Your task to perform on an android device: turn on translation in the chrome app Image 0: 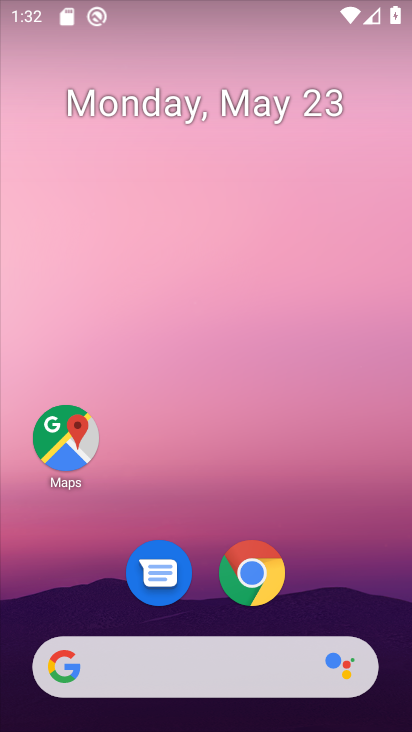
Step 0: click (254, 576)
Your task to perform on an android device: turn on translation in the chrome app Image 1: 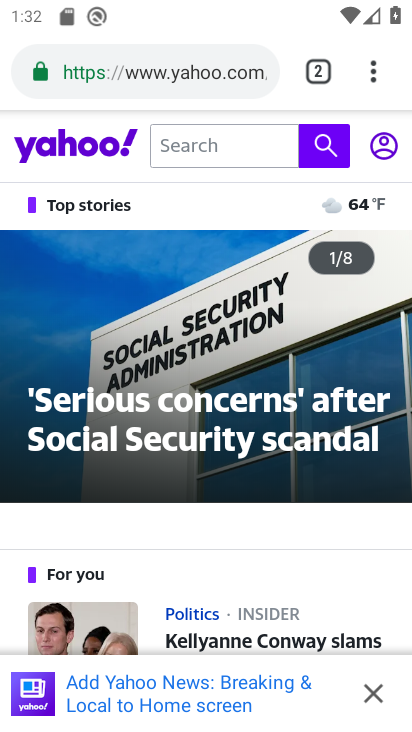
Step 1: click (382, 73)
Your task to perform on an android device: turn on translation in the chrome app Image 2: 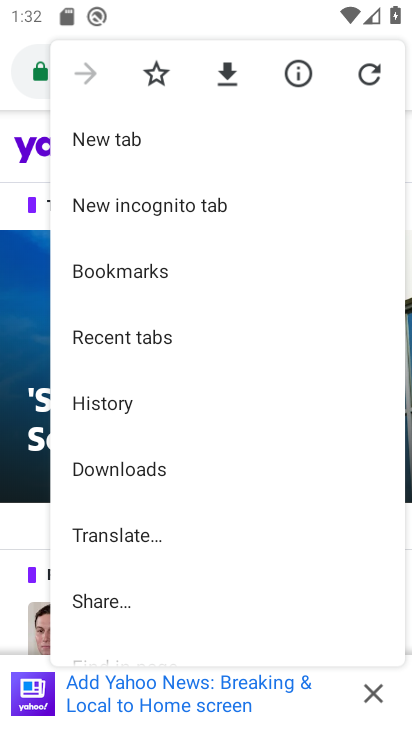
Step 2: drag from (201, 573) to (240, 205)
Your task to perform on an android device: turn on translation in the chrome app Image 3: 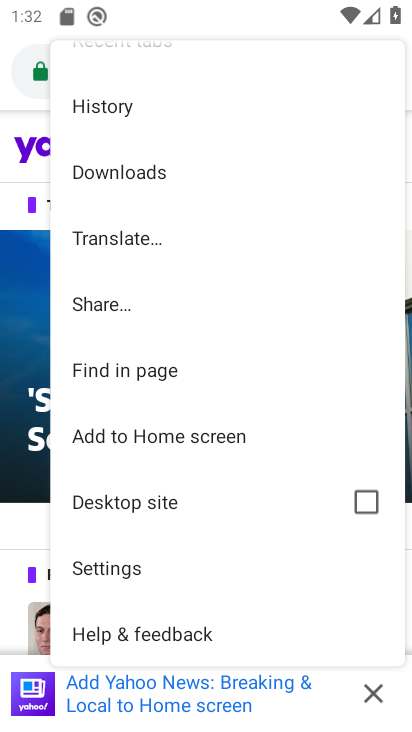
Step 3: click (134, 568)
Your task to perform on an android device: turn on translation in the chrome app Image 4: 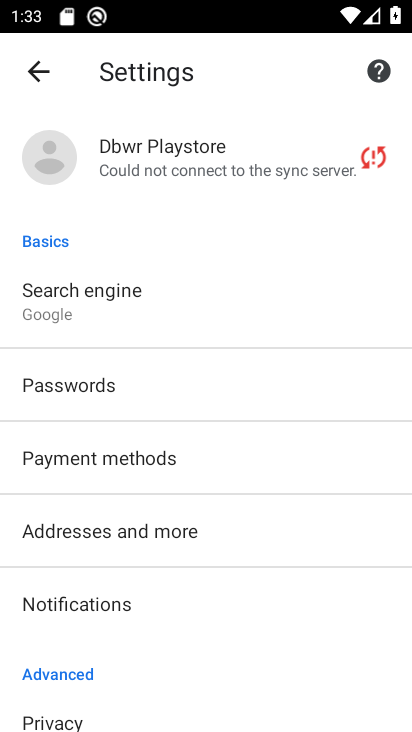
Step 4: drag from (218, 655) to (242, 265)
Your task to perform on an android device: turn on translation in the chrome app Image 5: 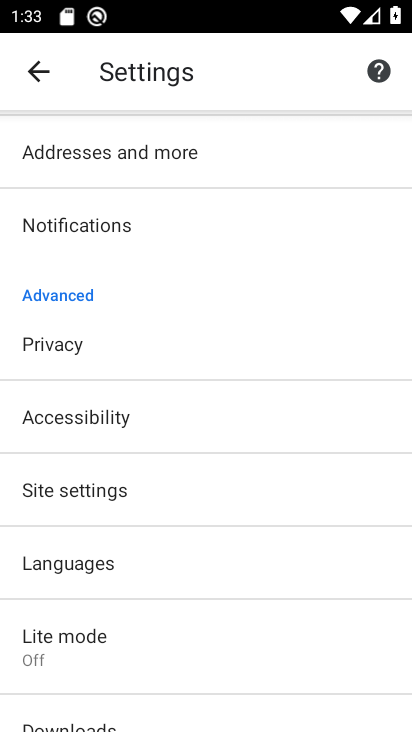
Step 5: click (135, 571)
Your task to perform on an android device: turn on translation in the chrome app Image 6: 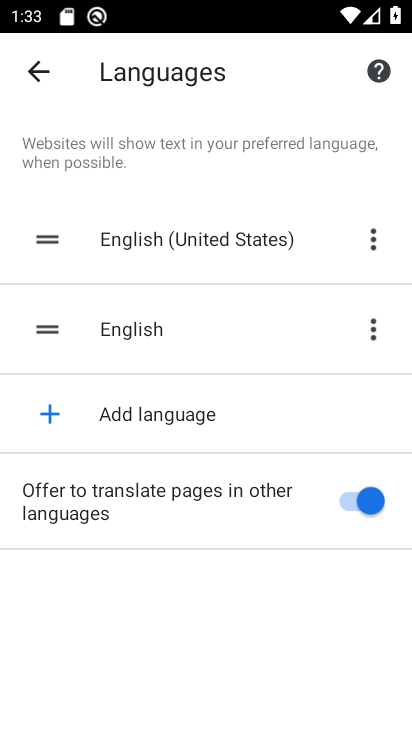
Step 6: task complete